Your task to perform on an android device: toggle sleep mode Image 0: 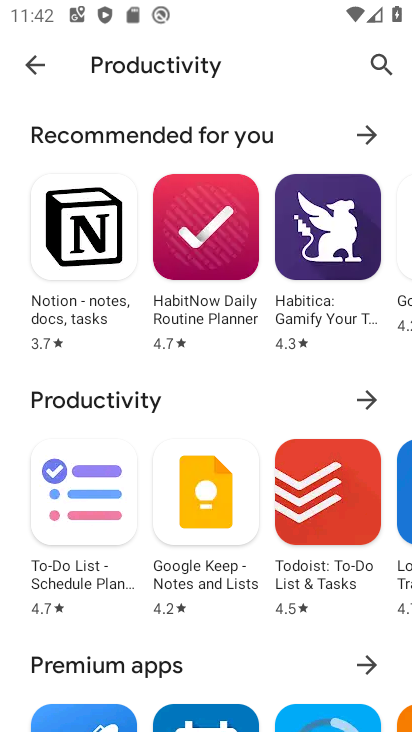
Step 0: press home button
Your task to perform on an android device: toggle sleep mode Image 1: 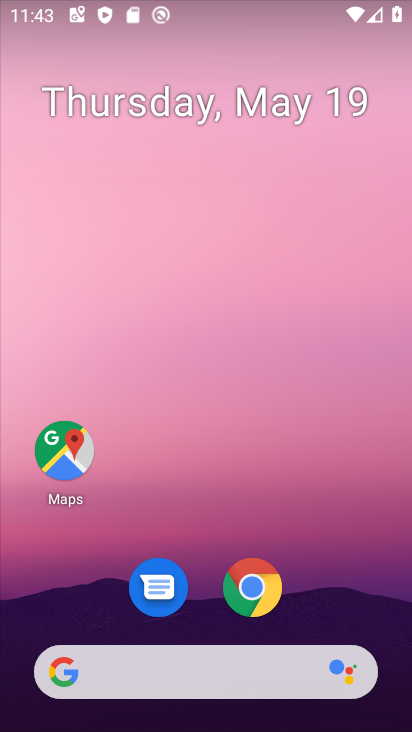
Step 1: drag from (207, 663) to (236, 254)
Your task to perform on an android device: toggle sleep mode Image 2: 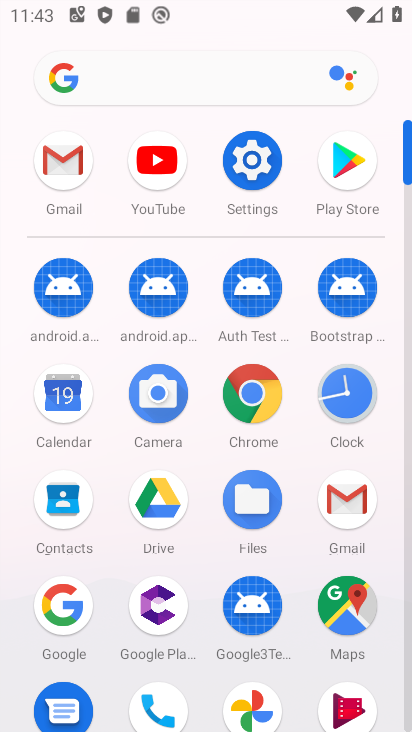
Step 2: click (243, 162)
Your task to perform on an android device: toggle sleep mode Image 3: 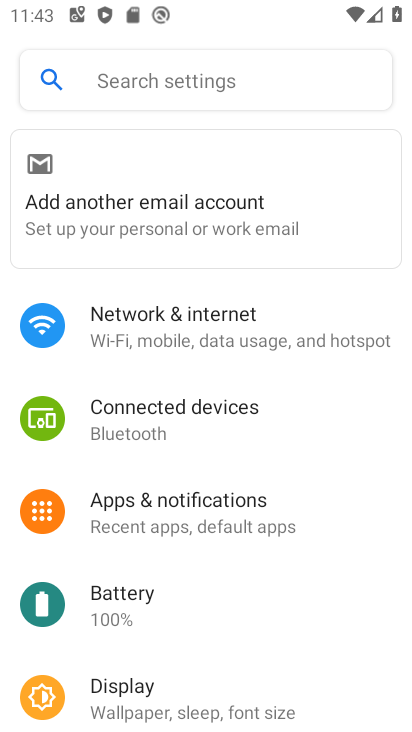
Step 3: drag from (163, 644) to (161, 220)
Your task to perform on an android device: toggle sleep mode Image 4: 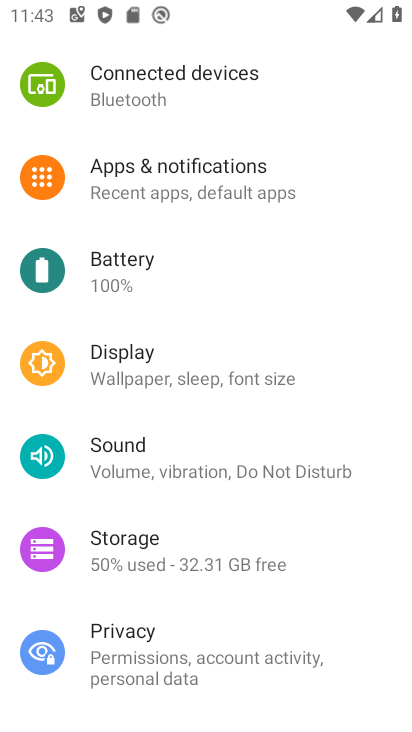
Step 4: click (147, 380)
Your task to perform on an android device: toggle sleep mode Image 5: 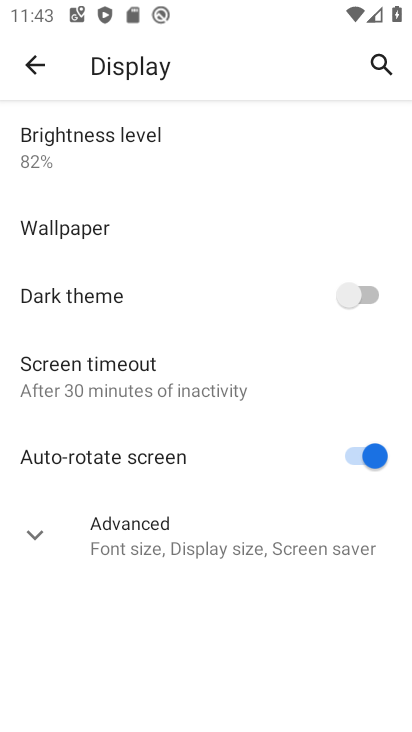
Step 5: click (149, 555)
Your task to perform on an android device: toggle sleep mode Image 6: 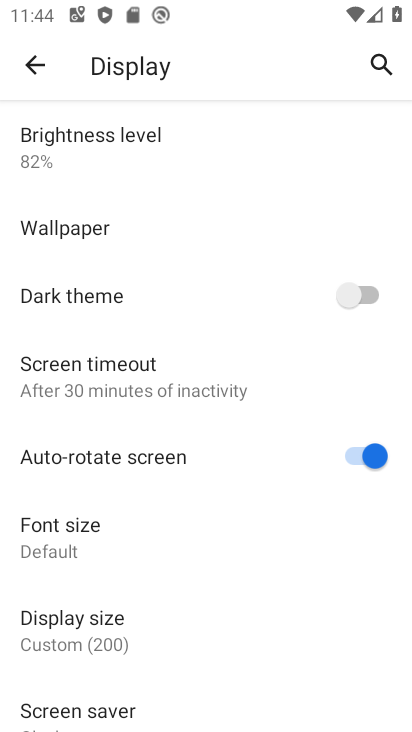
Step 6: task complete